Your task to perform on an android device: allow cookies in the chrome app Image 0: 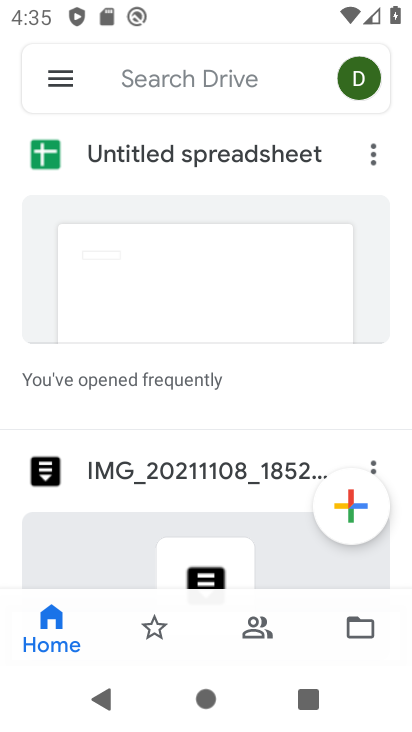
Step 0: press home button
Your task to perform on an android device: allow cookies in the chrome app Image 1: 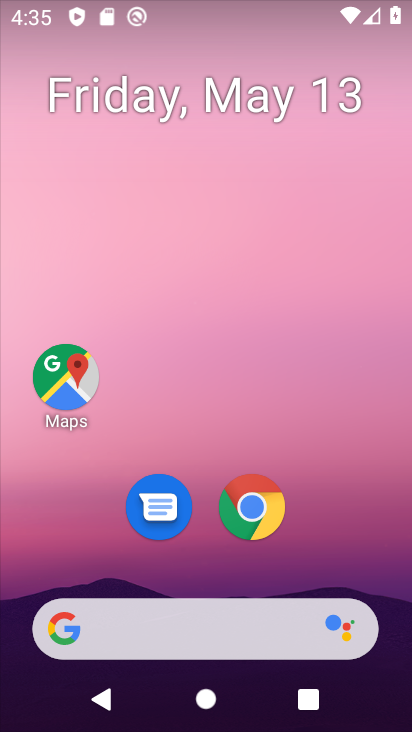
Step 1: click (261, 516)
Your task to perform on an android device: allow cookies in the chrome app Image 2: 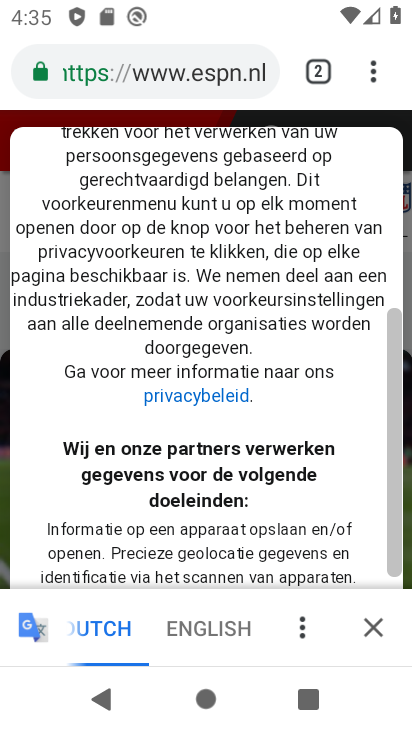
Step 2: click (375, 71)
Your task to perform on an android device: allow cookies in the chrome app Image 3: 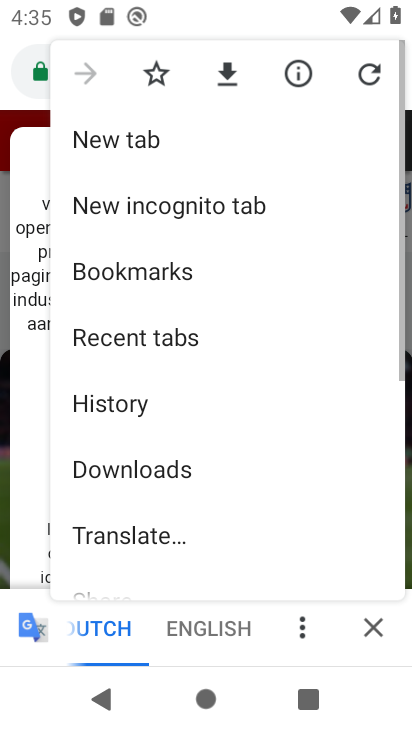
Step 3: drag from (260, 515) to (213, 151)
Your task to perform on an android device: allow cookies in the chrome app Image 4: 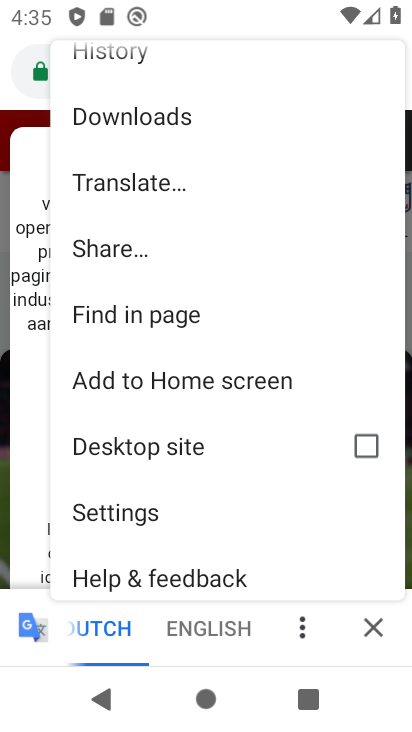
Step 4: click (187, 516)
Your task to perform on an android device: allow cookies in the chrome app Image 5: 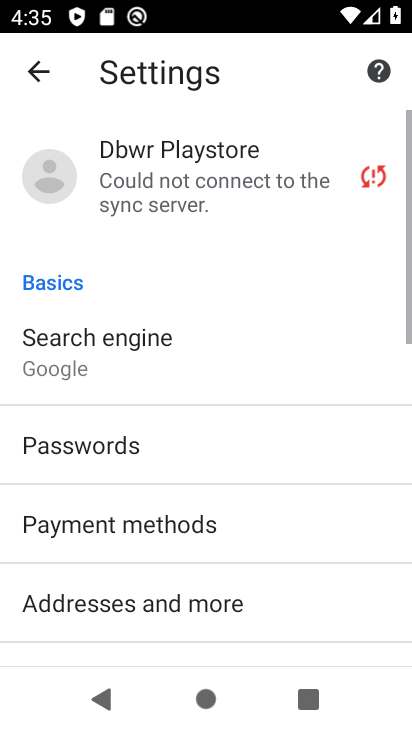
Step 5: drag from (163, 539) to (145, 68)
Your task to perform on an android device: allow cookies in the chrome app Image 6: 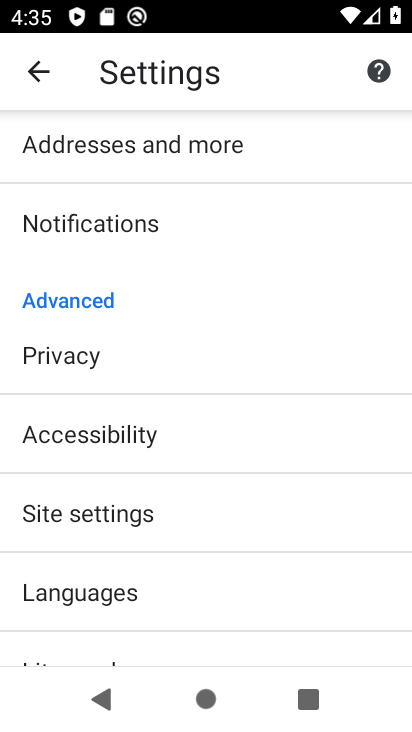
Step 6: click (130, 528)
Your task to perform on an android device: allow cookies in the chrome app Image 7: 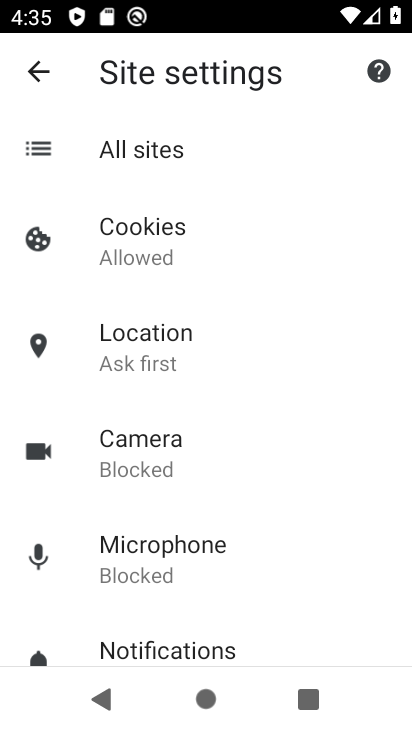
Step 7: click (193, 240)
Your task to perform on an android device: allow cookies in the chrome app Image 8: 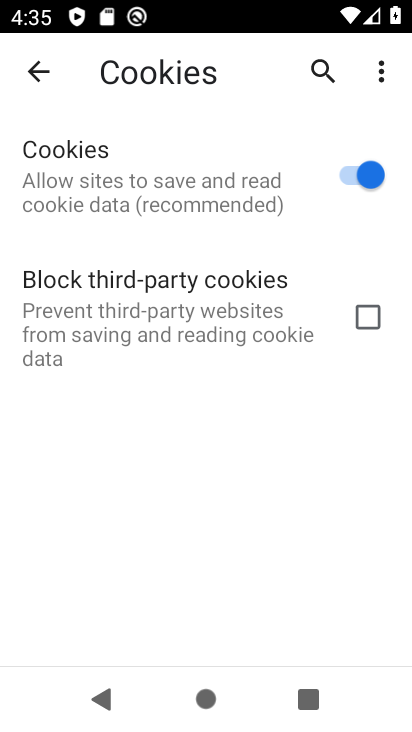
Step 8: task complete